Your task to perform on an android device: open app "McDonald's" Image 0: 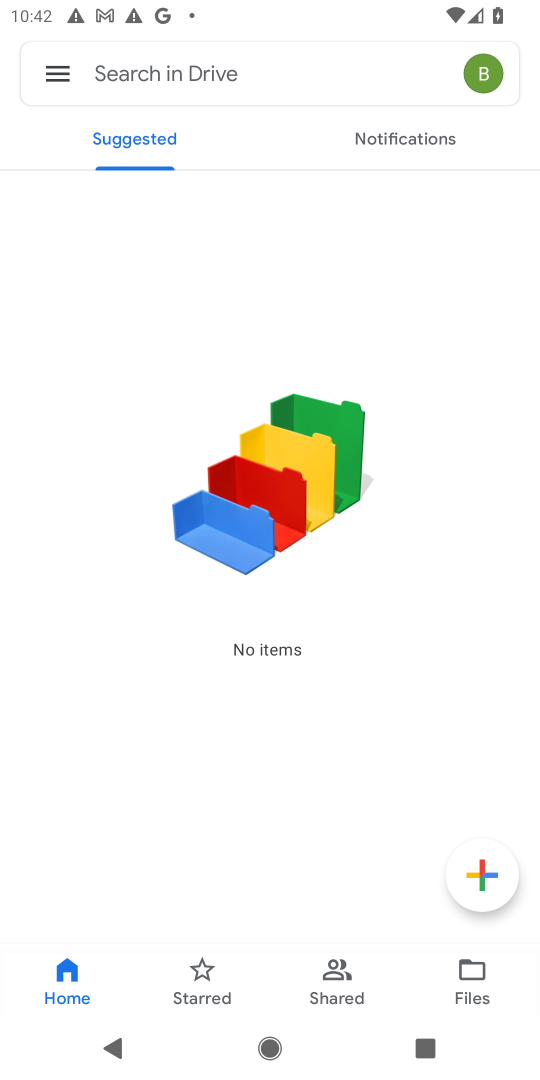
Step 0: press home button
Your task to perform on an android device: open app "McDonald's" Image 1: 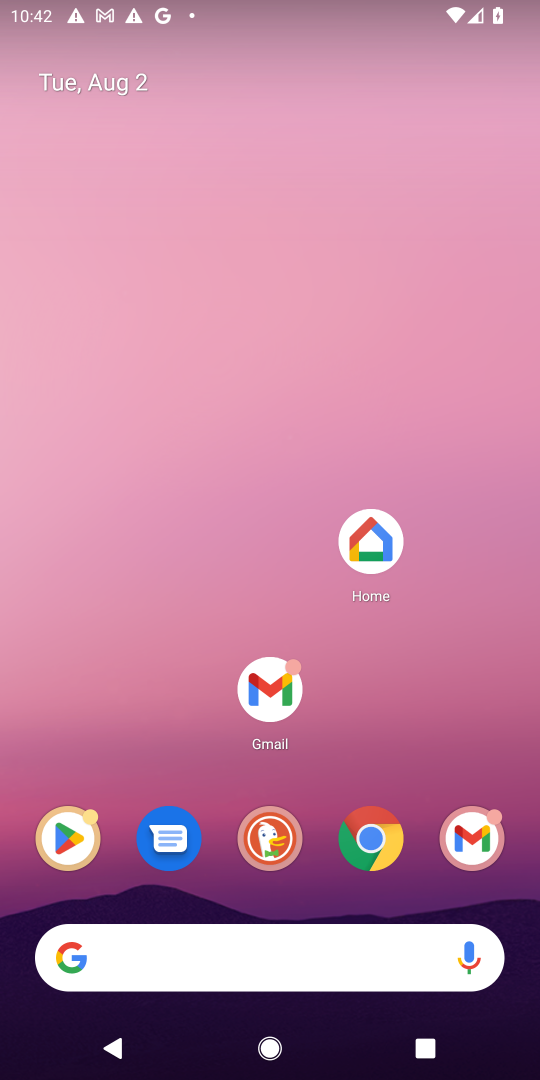
Step 1: drag from (160, 746) to (208, 152)
Your task to perform on an android device: open app "McDonald's" Image 2: 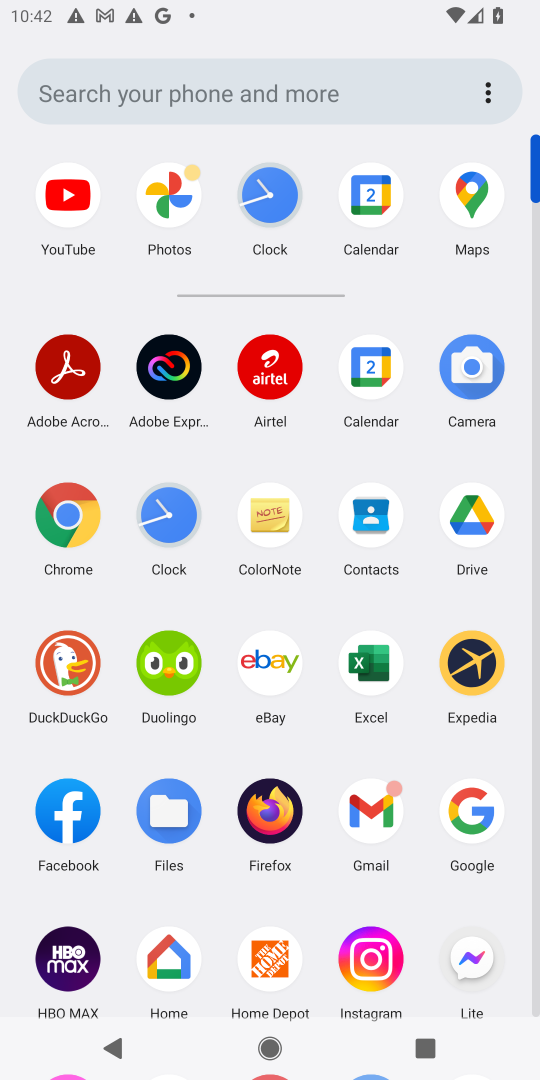
Step 2: drag from (212, 887) to (226, 608)
Your task to perform on an android device: open app "McDonald's" Image 3: 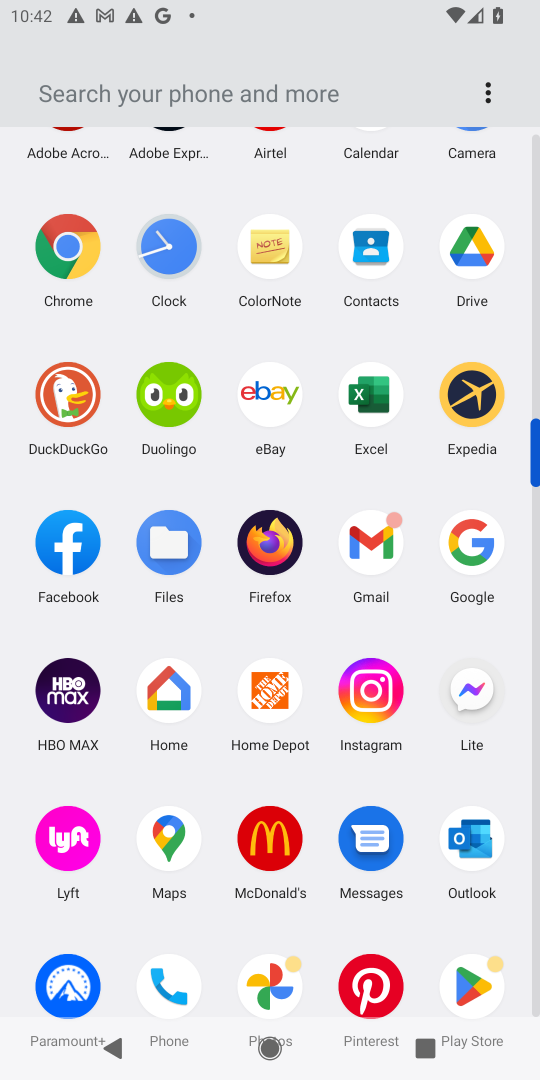
Step 3: drag from (200, 913) to (208, 610)
Your task to perform on an android device: open app "McDonald's" Image 4: 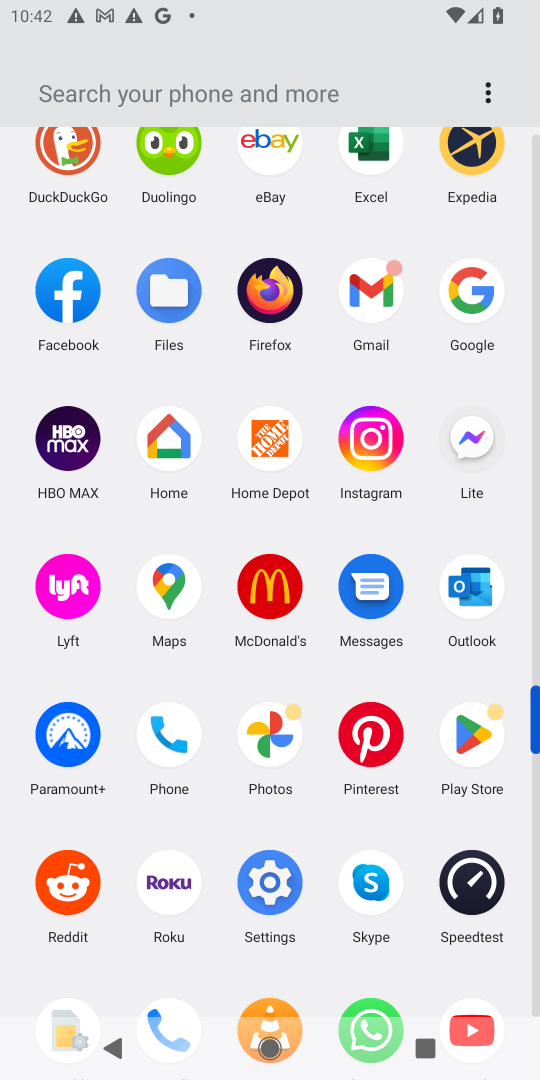
Step 4: drag from (205, 953) to (219, 653)
Your task to perform on an android device: open app "McDonald's" Image 5: 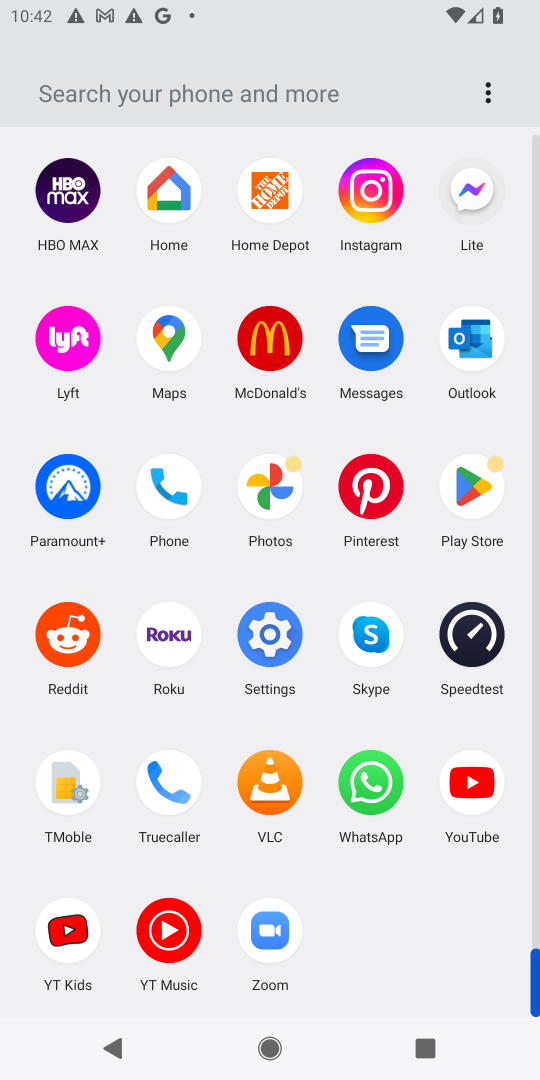
Step 5: click (492, 488)
Your task to perform on an android device: open app "McDonald's" Image 6: 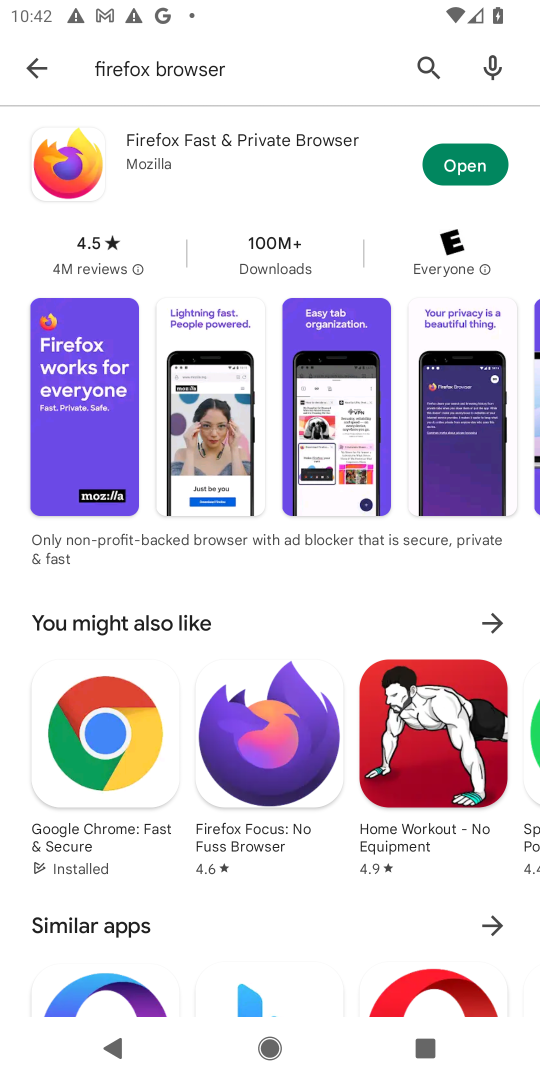
Step 6: click (423, 67)
Your task to perform on an android device: open app "McDonald's" Image 7: 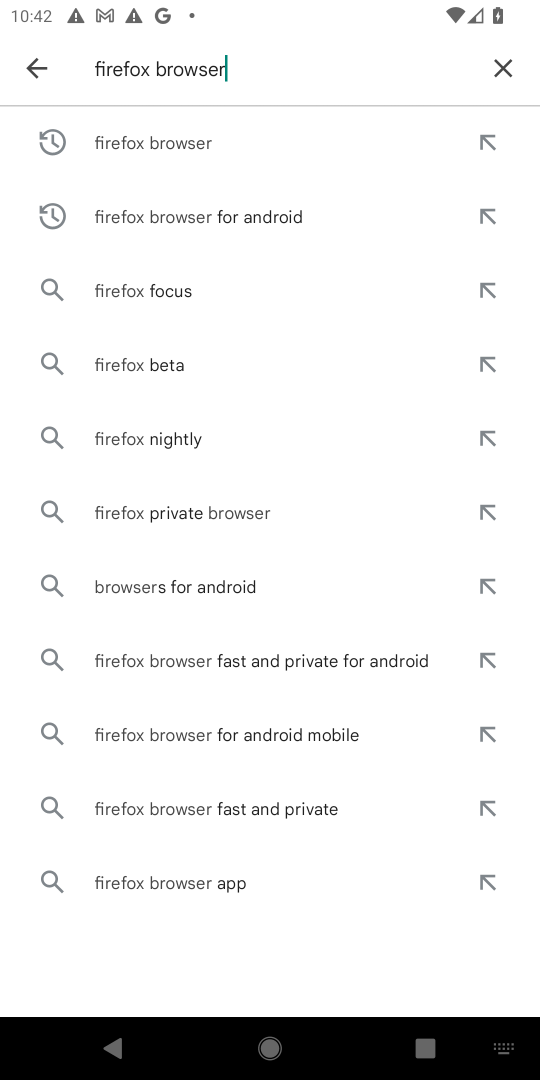
Step 7: click (500, 65)
Your task to perform on an android device: open app "McDonald's" Image 8: 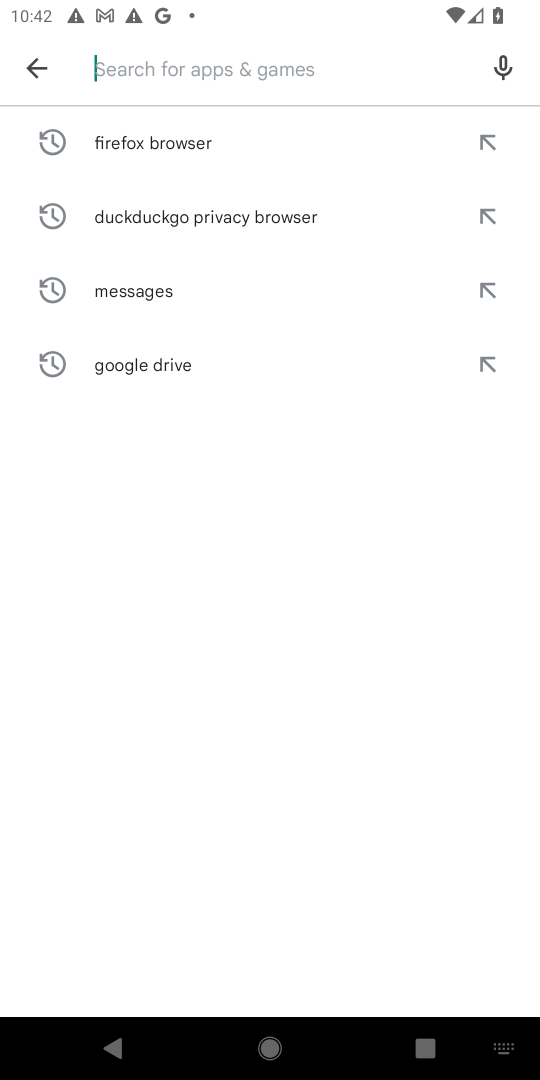
Step 8: type "mcdonalds"
Your task to perform on an android device: open app "McDonald's" Image 9: 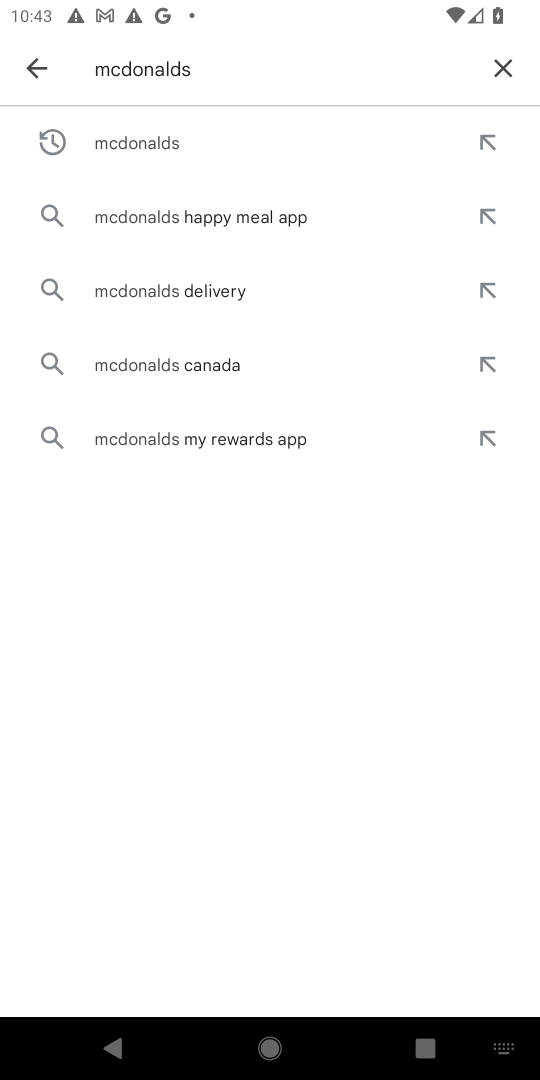
Step 9: click (253, 141)
Your task to perform on an android device: open app "McDonald's" Image 10: 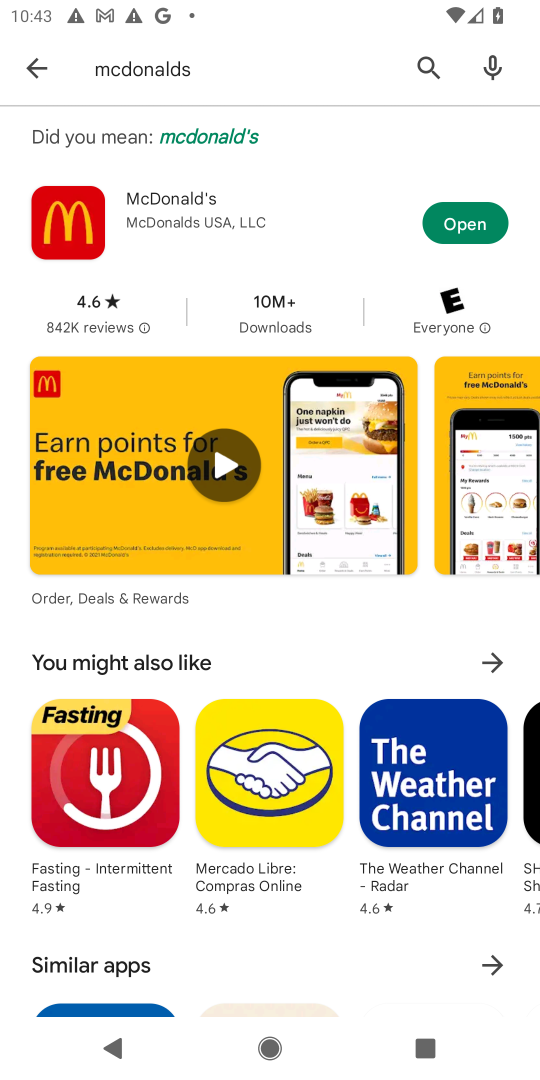
Step 10: click (475, 216)
Your task to perform on an android device: open app "McDonald's" Image 11: 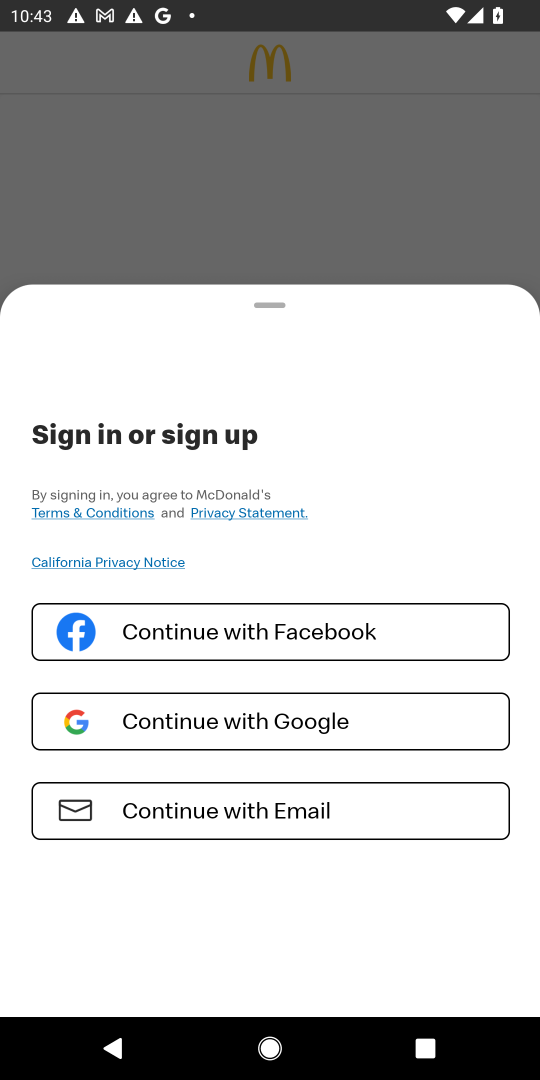
Step 11: task complete